Your task to perform on an android device: Turn off the flashlight Image 0: 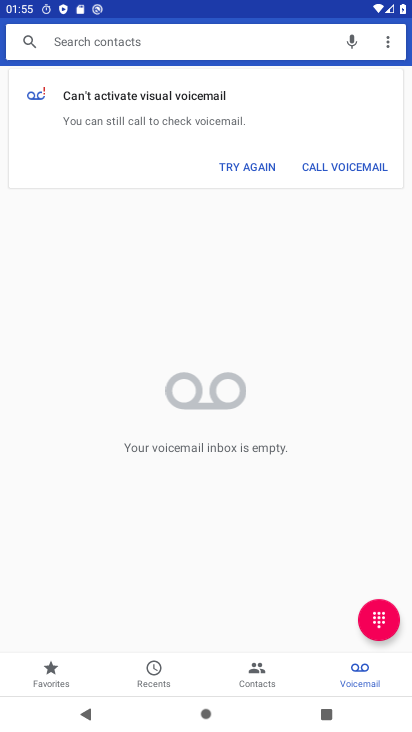
Step 0: press home button
Your task to perform on an android device: Turn off the flashlight Image 1: 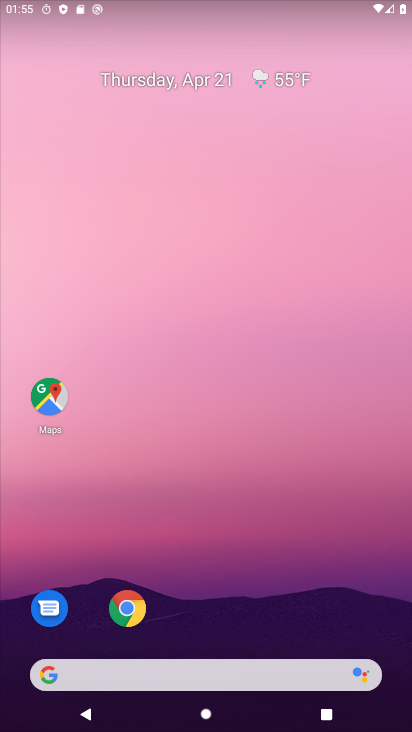
Step 1: drag from (249, 558) to (182, 52)
Your task to perform on an android device: Turn off the flashlight Image 2: 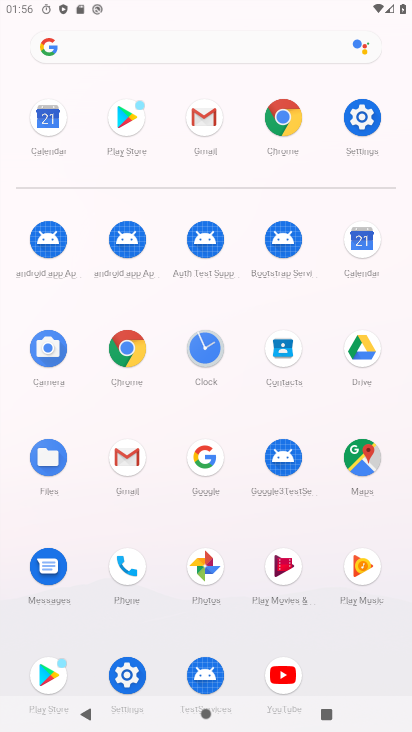
Step 2: click (365, 108)
Your task to perform on an android device: Turn off the flashlight Image 3: 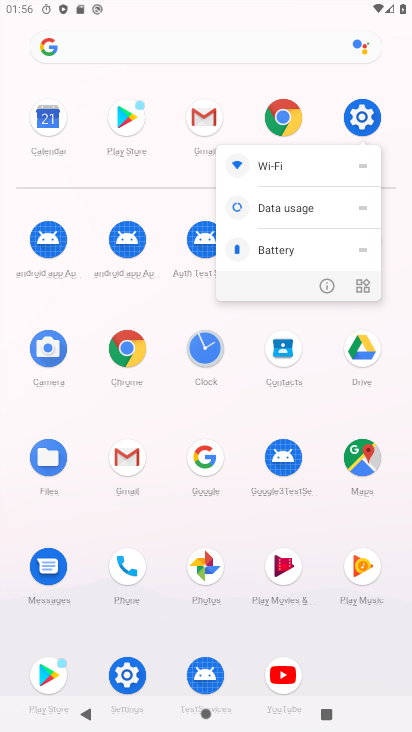
Step 3: click (365, 108)
Your task to perform on an android device: Turn off the flashlight Image 4: 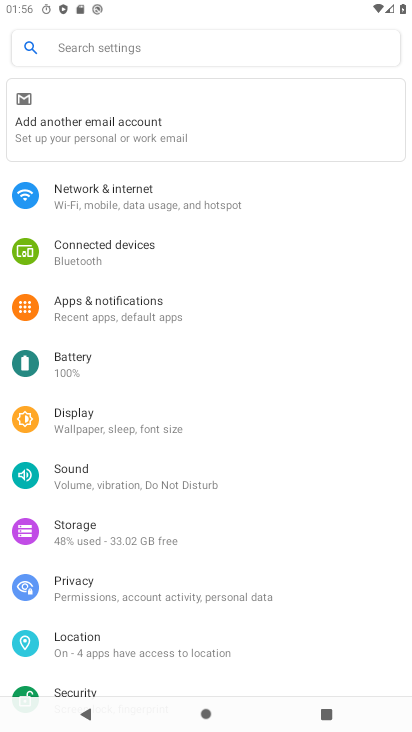
Step 4: click (123, 42)
Your task to perform on an android device: Turn off the flashlight Image 5: 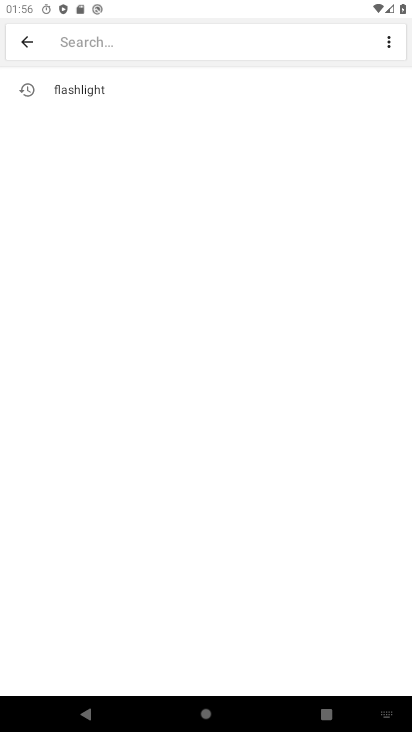
Step 5: click (83, 89)
Your task to perform on an android device: Turn off the flashlight Image 6: 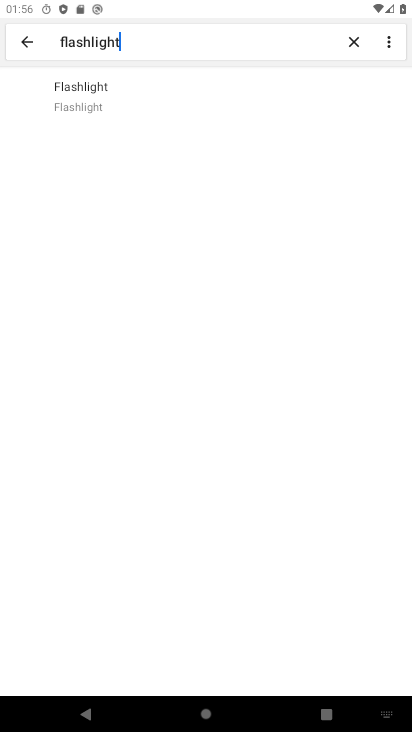
Step 6: click (74, 110)
Your task to perform on an android device: Turn off the flashlight Image 7: 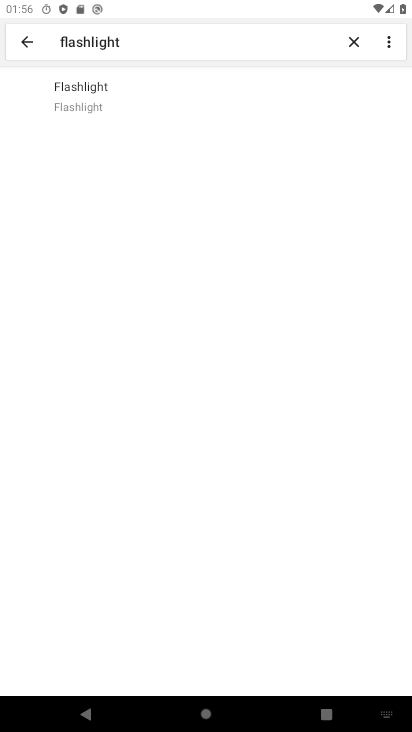
Step 7: task complete